Your task to perform on an android device: toggle show notifications on the lock screen Image 0: 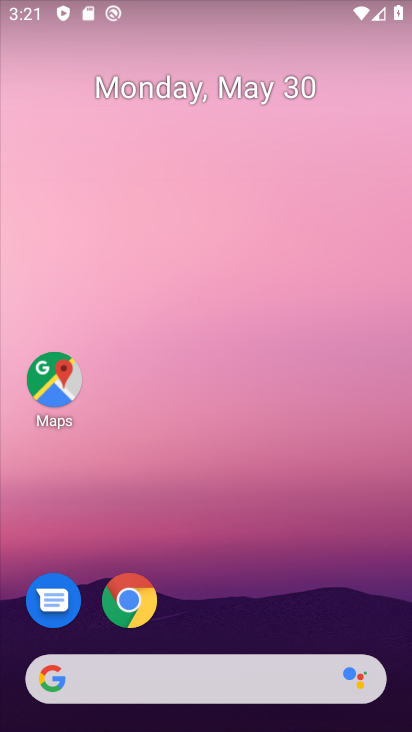
Step 0: drag from (258, 631) to (181, 233)
Your task to perform on an android device: toggle show notifications on the lock screen Image 1: 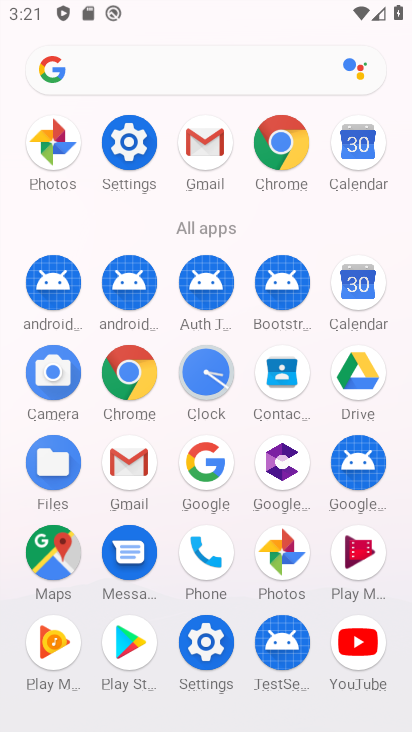
Step 1: click (142, 147)
Your task to perform on an android device: toggle show notifications on the lock screen Image 2: 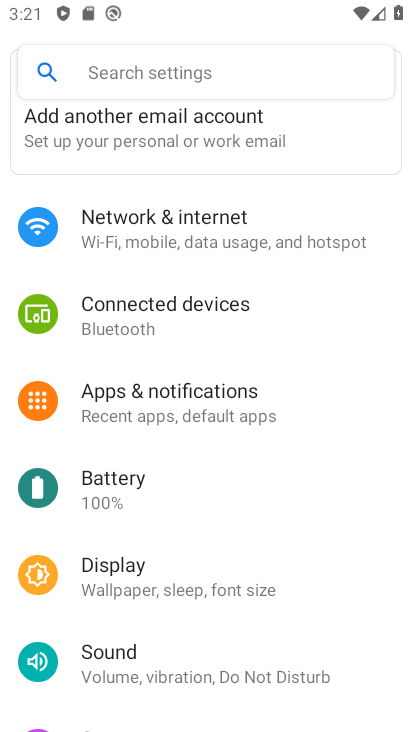
Step 2: drag from (231, 576) to (217, 401)
Your task to perform on an android device: toggle show notifications on the lock screen Image 3: 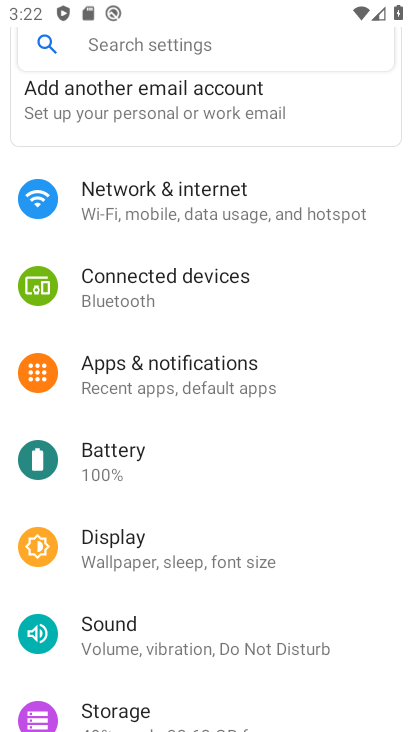
Step 3: click (217, 385)
Your task to perform on an android device: toggle show notifications on the lock screen Image 4: 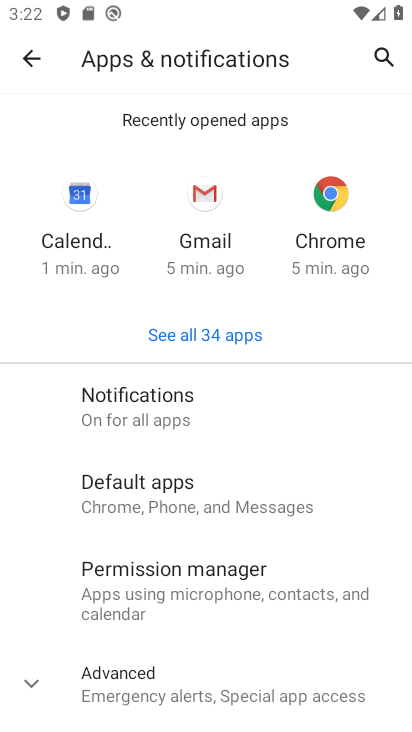
Step 4: click (258, 393)
Your task to perform on an android device: toggle show notifications on the lock screen Image 5: 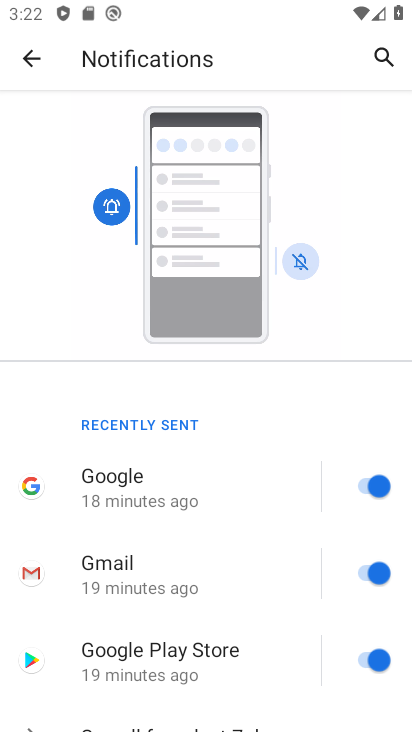
Step 5: drag from (285, 679) to (202, 149)
Your task to perform on an android device: toggle show notifications on the lock screen Image 6: 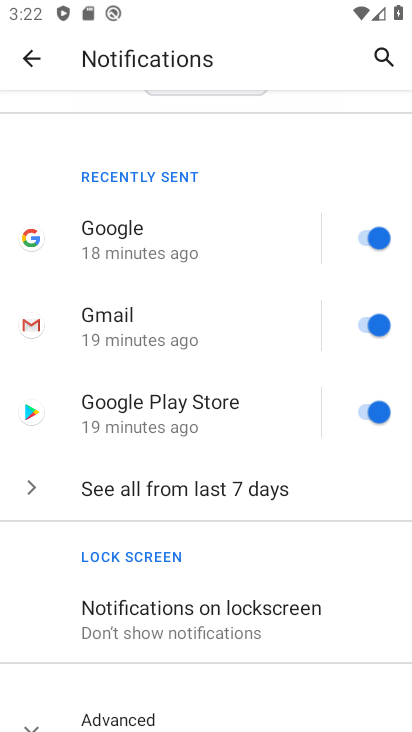
Step 6: drag from (209, 633) to (29, 254)
Your task to perform on an android device: toggle show notifications on the lock screen Image 7: 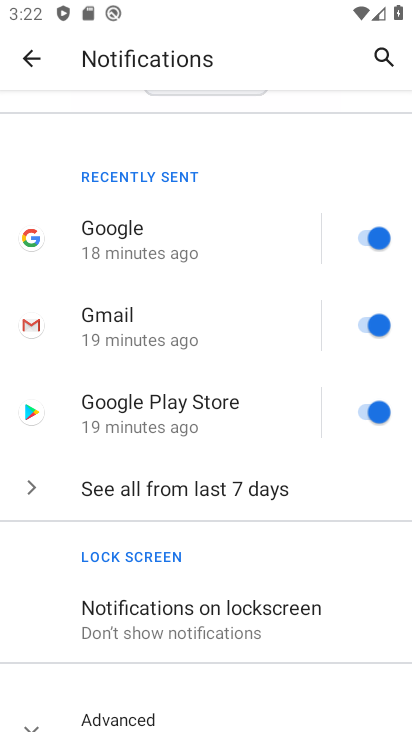
Step 7: click (231, 611)
Your task to perform on an android device: toggle show notifications on the lock screen Image 8: 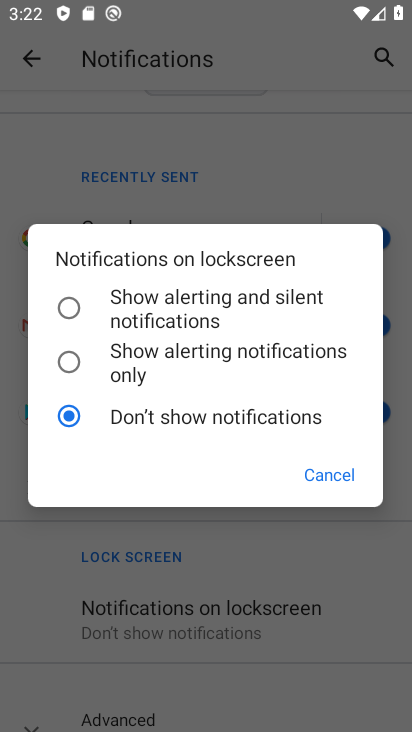
Step 8: click (224, 321)
Your task to perform on an android device: toggle show notifications on the lock screen Image 9: 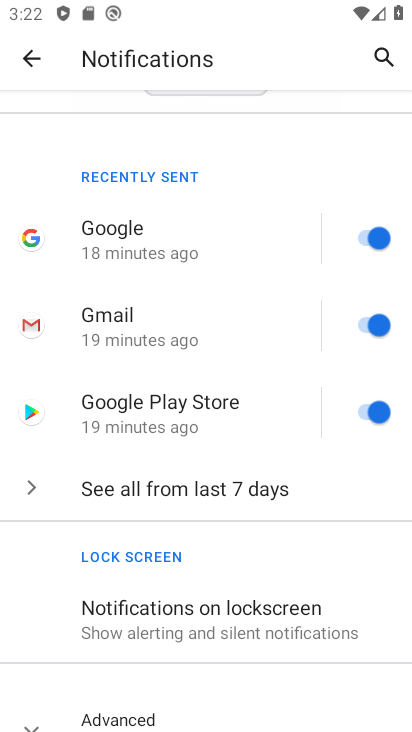
Step 9: task complete